Your task to perform on an android device: Show me recent news Image 0: 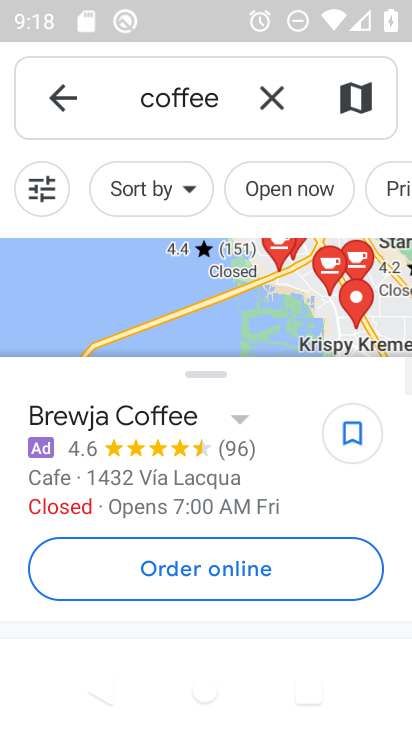
Step 0: press home button
Your task to perform on an android device: Show me recent news Image 1: 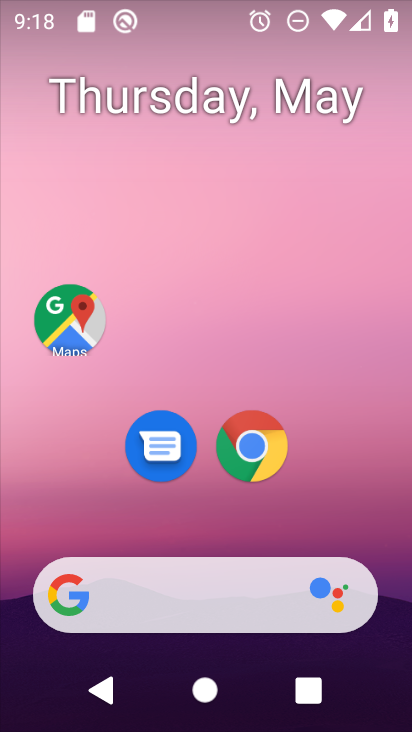
Step 1: drag from (371, 495) to (330, 122)
Your task to perform on an android device: Show me recent news Image 2: 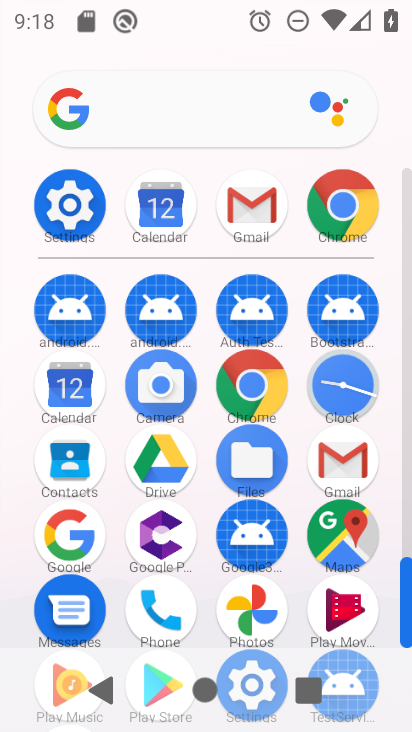
Step 2: click (347, 207)
Your task to perform on an android device: Show me recent news Image 3: 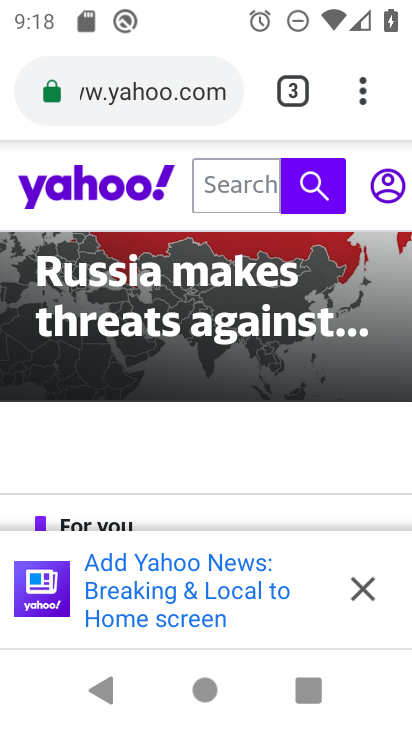
Step 3: click (168, 109)
Your task to perform on an android device: Show me recent news Image 4: 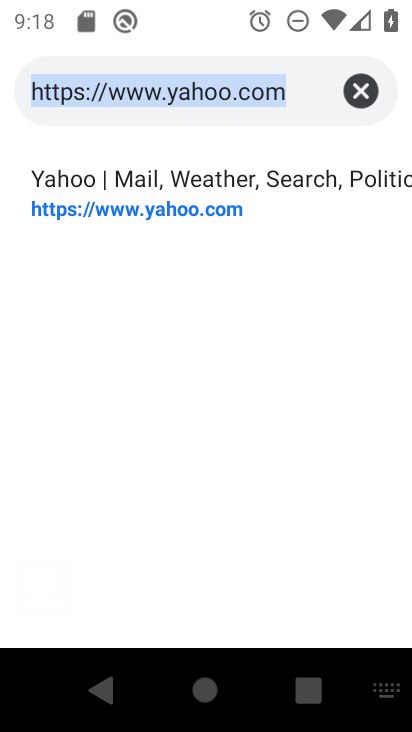
Step 4: click (356, 87)
Your task to perform on an android device: Show me recent news Image 5: 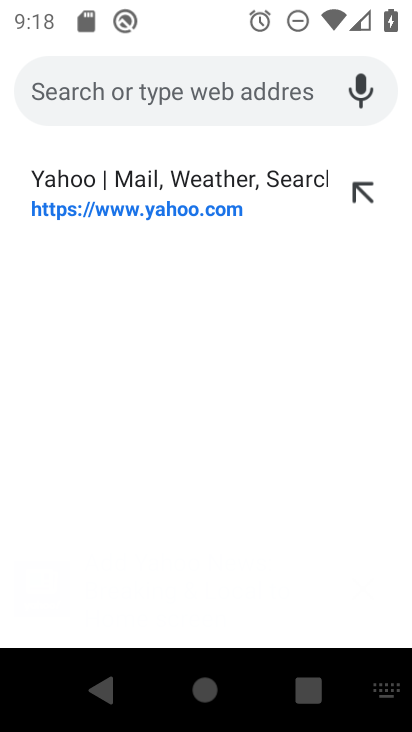
Step 5: type "recent news"
Your task to perform on an android device: Show me recent news Image 6: 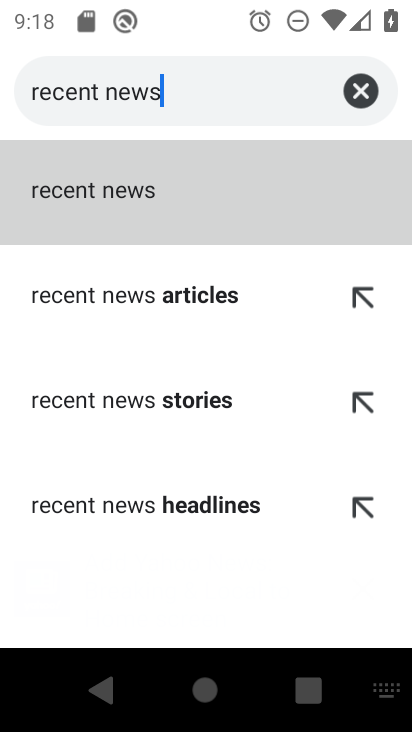
Step 6: click (146, 192)
Your task to perform on an android device: Show me recent news Image 7: 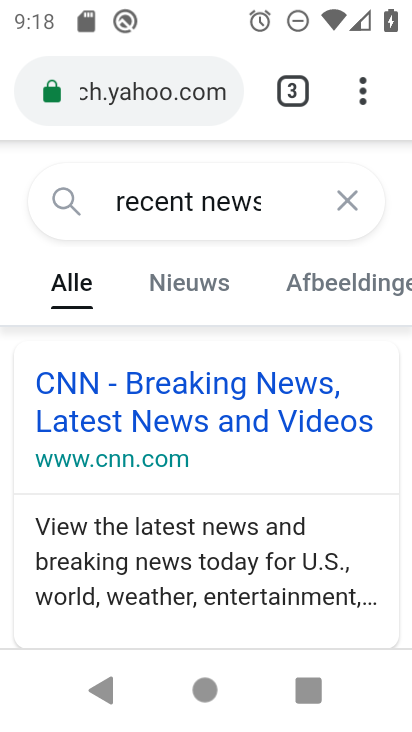
Step 7: click (183, 412)
Your task to perform on an android device: Show me recent news Image 8: 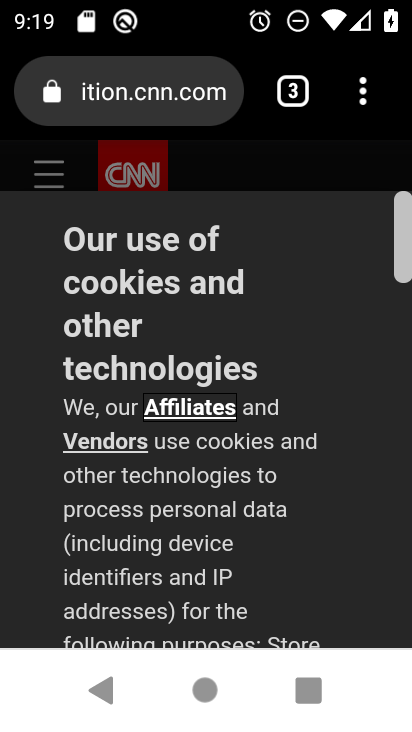
Step 8: task complete